Your task to perform on an android device: remove spam from my inbox in the gmail app Image 0: 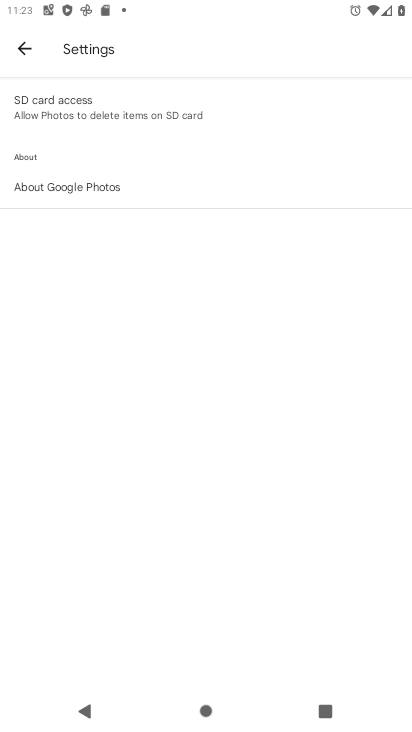
Step 0: press home button
Your task to perform on an android device: remove spam from my inbox in the gmail app Image 1: 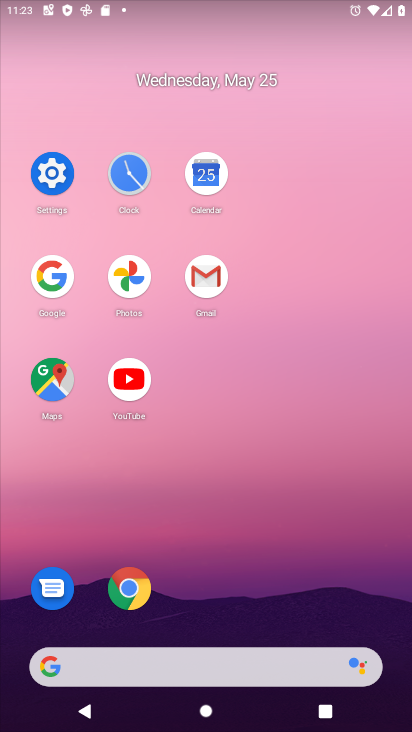
Step 1: click (215, 272)
Your task to perform on an android device: remove spam from my inbox in the gmail app Image 2: 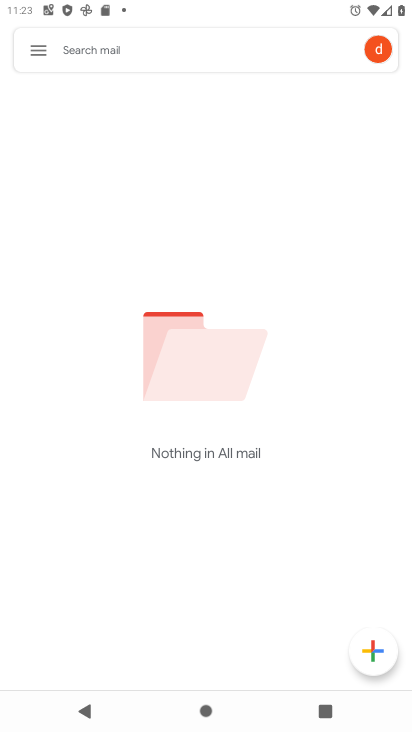
Step 2: click (36, 49)
Your task to perform on an android device: remove spam from my inbox in the gmail app Image 3: 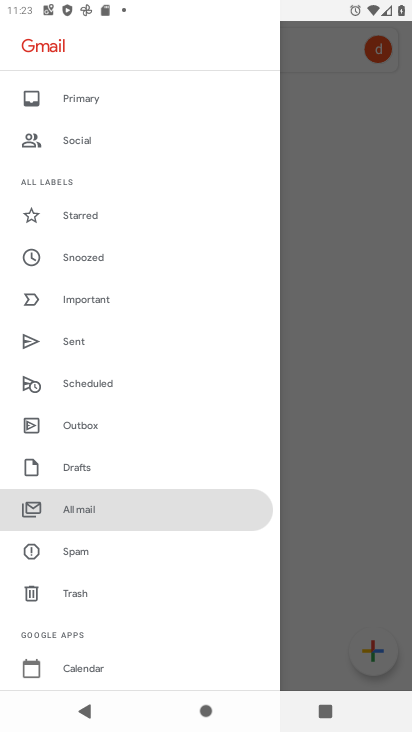
Step 3: click (100, 561)
Your task to perform on an android device: remove spam from my inbox in the gmail app Image 4: 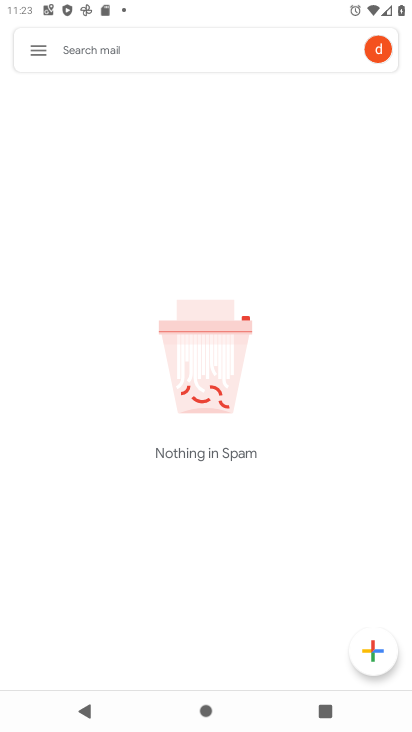
Step 4: task complete